Your task to perform on an android device: change timer sound Image 0: 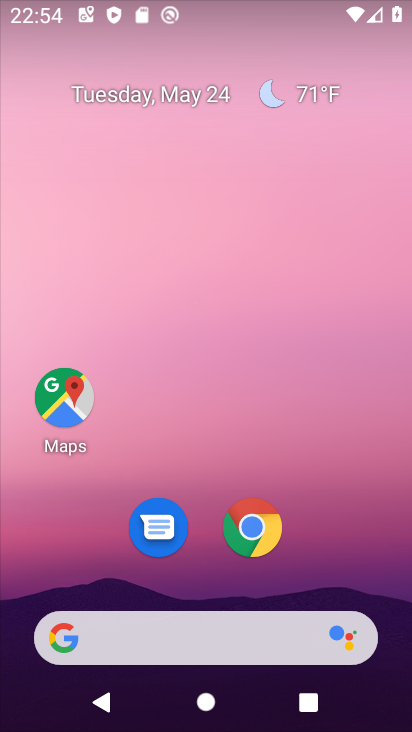
Step 0: drag from (374, 471) to (385, 28)
Your task to perform on an android device: change timer sound Image 1: 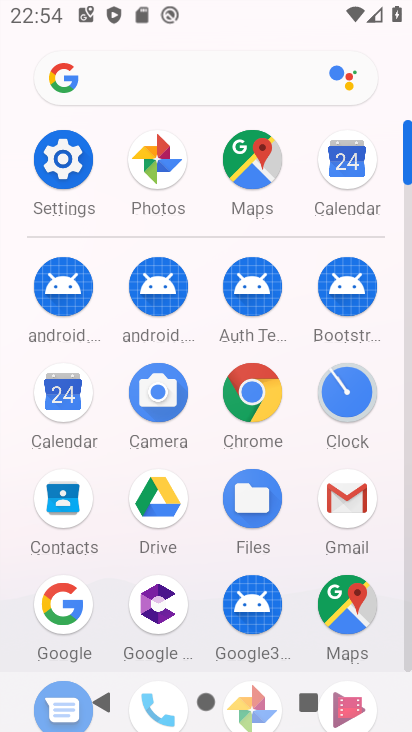
Step 1: click (341, 388)
Your task to perform on an android device: change timer sound Image 2: 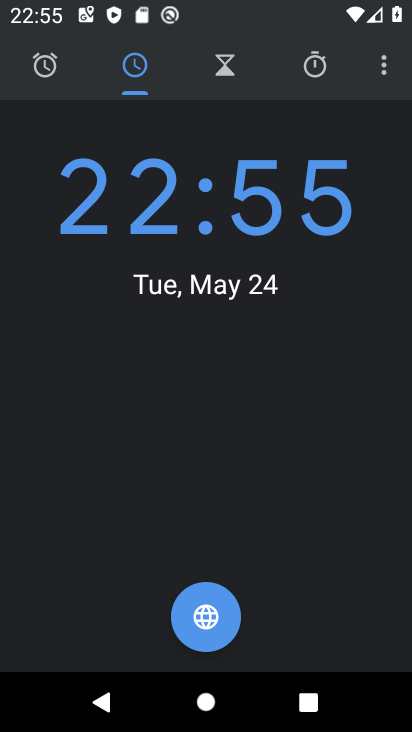
Step 2: click (380, 65)
Your task to perform on an android device: change timer sound Image 3: 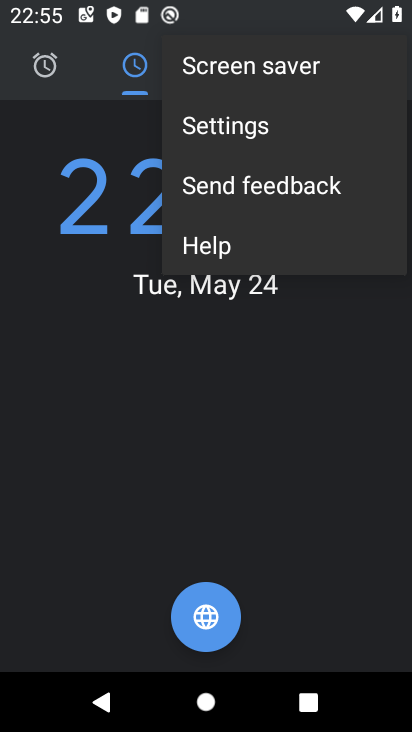
Step 3: click (251, 132)
Your task to perform on an android device: change timer sound Image 4: 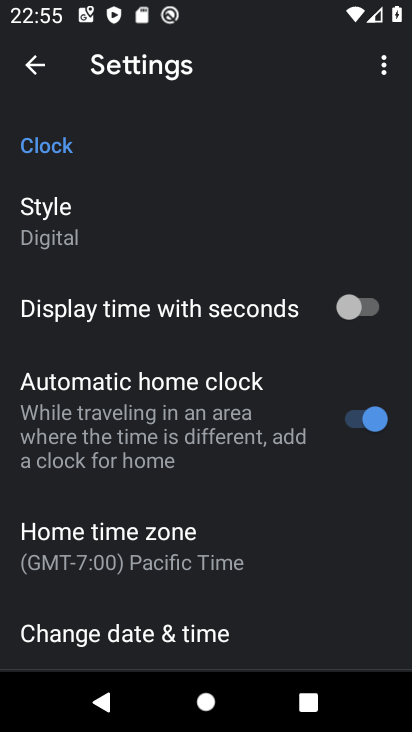
Step 4: drag from (211, 594) to (204, 295)
Your task to perform on an android device: change timer sound Image 5: 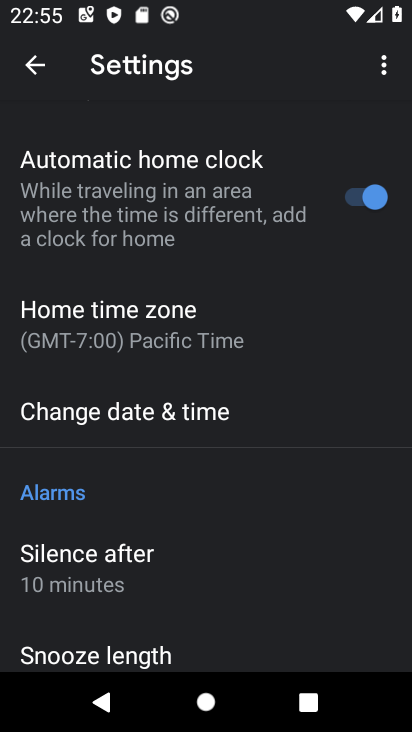
Step 5: drag from (190, 594) to (174, 302)
Your task to perform on an android device: change timer sound Image 6: 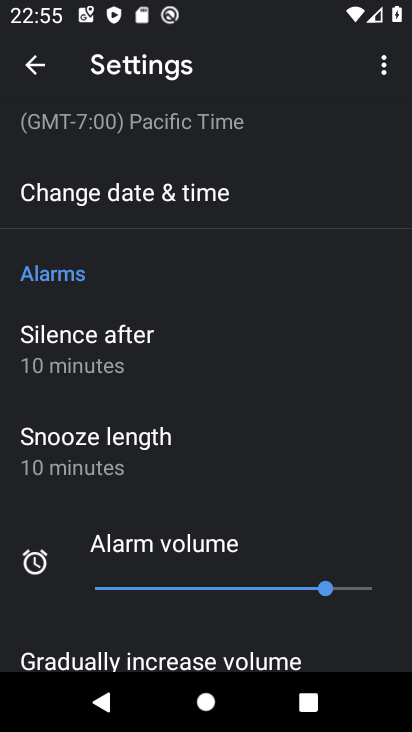
Step 6: drag from (241, 522) to (273, 191)
Your task to perform on an android device: change timer sound Image 7: 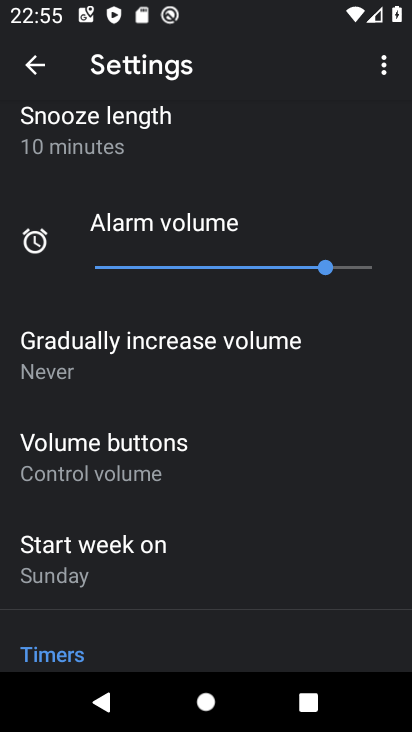
Step 7: drag from (213, 560) to (207, 281)
Your task to perform on an android device: change timer sound Image 8: 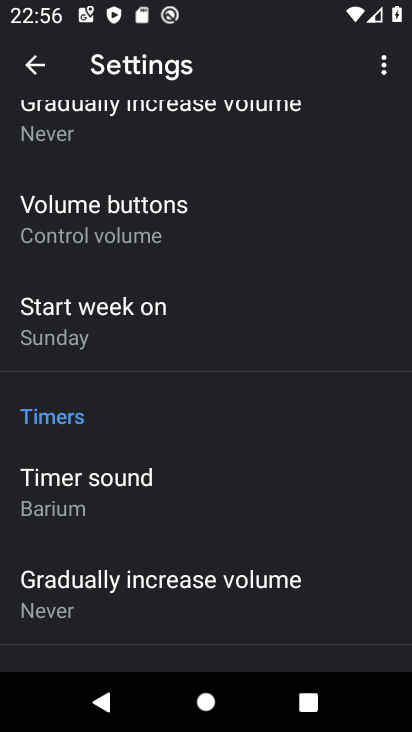
Step 8: click (92, 496)
Your task to perform on an android device: change timer sound Image 9: 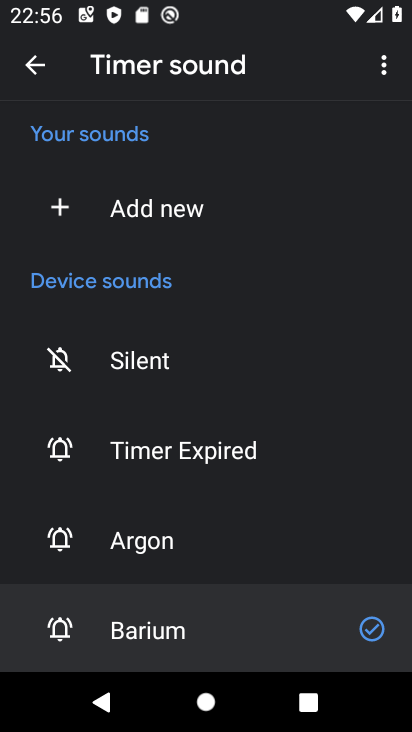
Step 9: click (168, 556)
Your task to perform on an android device: change timer sound Image 10: 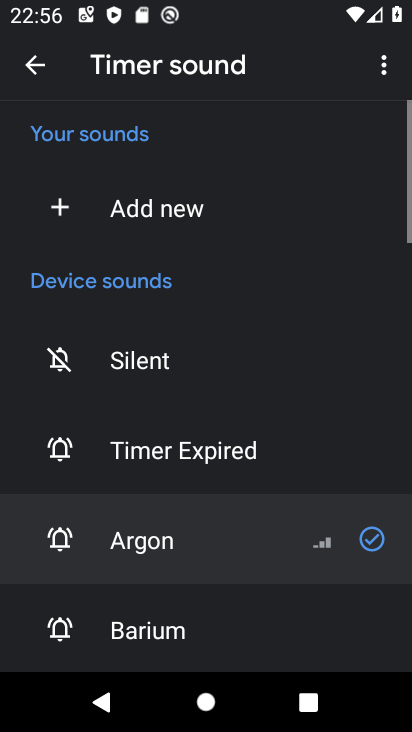
Step 10: task complete